Your task to perform on an android device: Clear the cart on costco. Search for razer nari on costco, select the first entry, add it to the cart, then select checkout. Image 0: 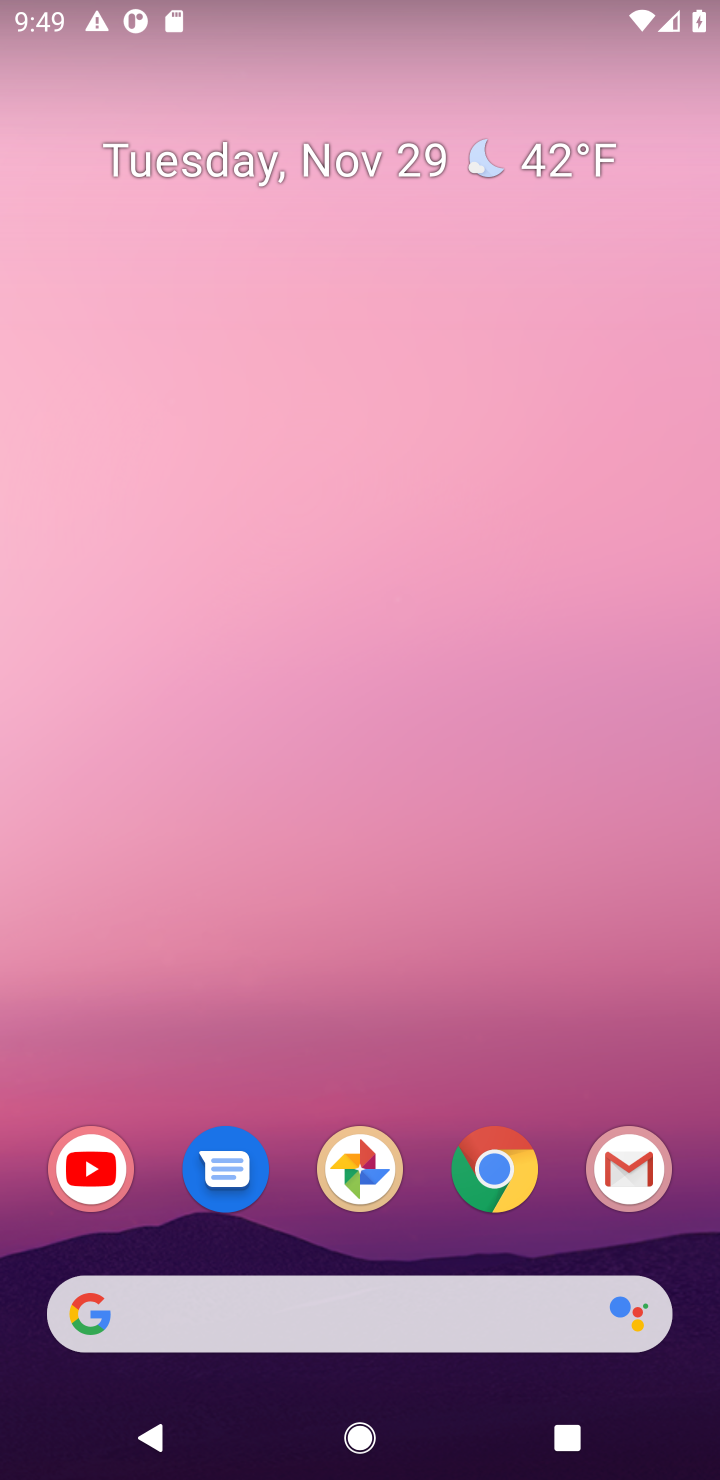
Step 0: click (253, 1322)
Your task to perform on an android device: Clear the cart on costco. Search for razer nari on costco, select the first entry, add it to the cart, then select checkout. Image 1: 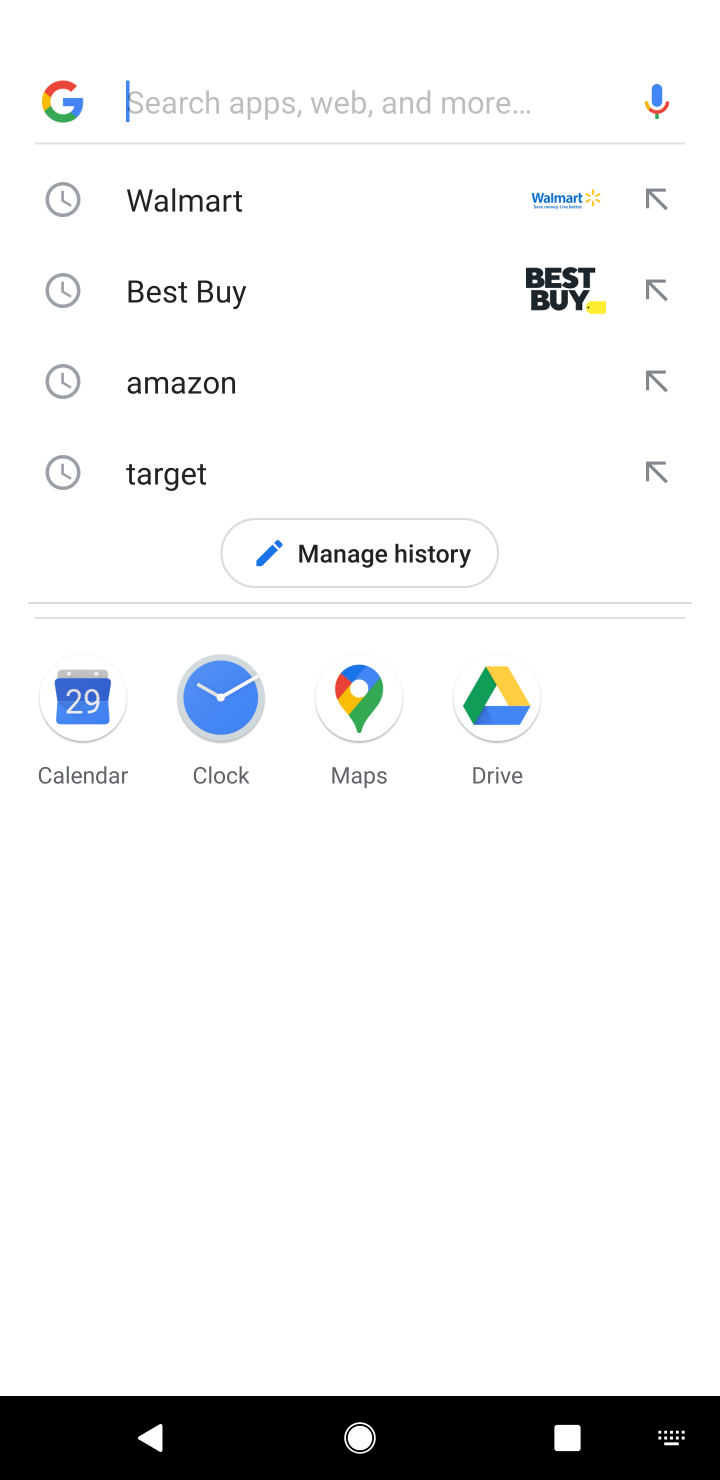
Step 1: type "costco"
Your task to perform on an android device: Clear the cart on costco. Search for razer nari on costco, select the first entry, add it to the cart, then select checkout. Image 2: 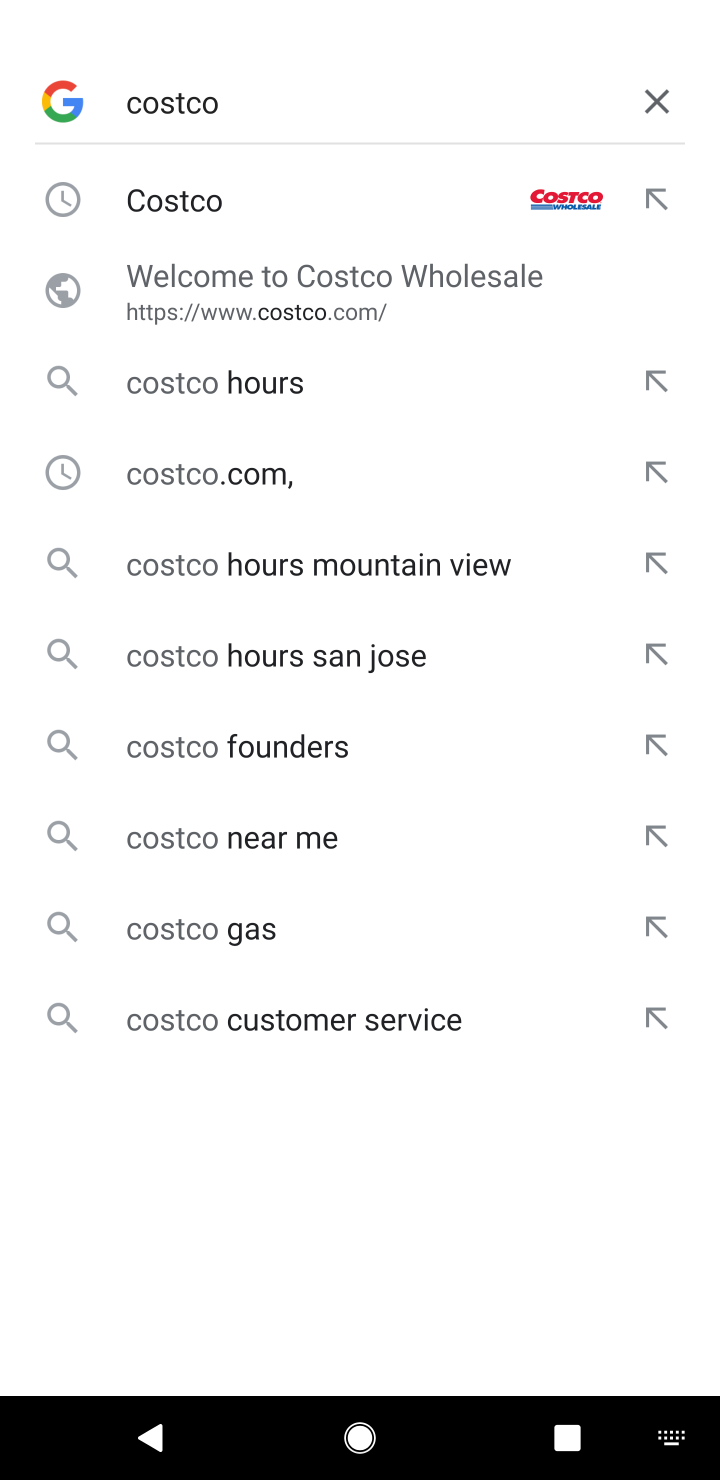
Step 2: click (244, 201)
Your task to perform on an android device: Clear the cart on costco. Search for razer nari on costco, select the first entry, add it to the cart, then select checkout. Image 3: 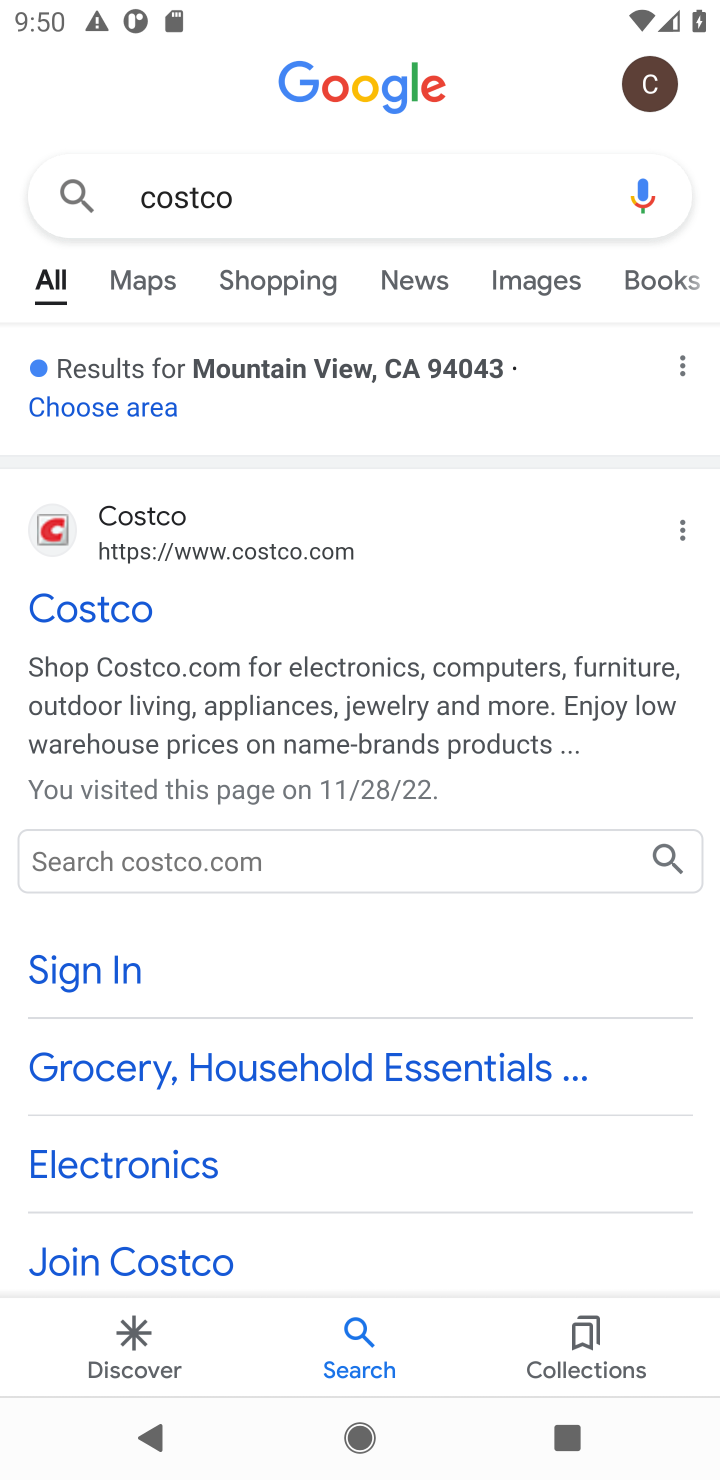
Step 3: click (63, 627)
Your task to perform on an android device: Clear the cart on costco. Search for razer nari on costco, select the first entry, add it to the cart, then select checkout. Image 4: 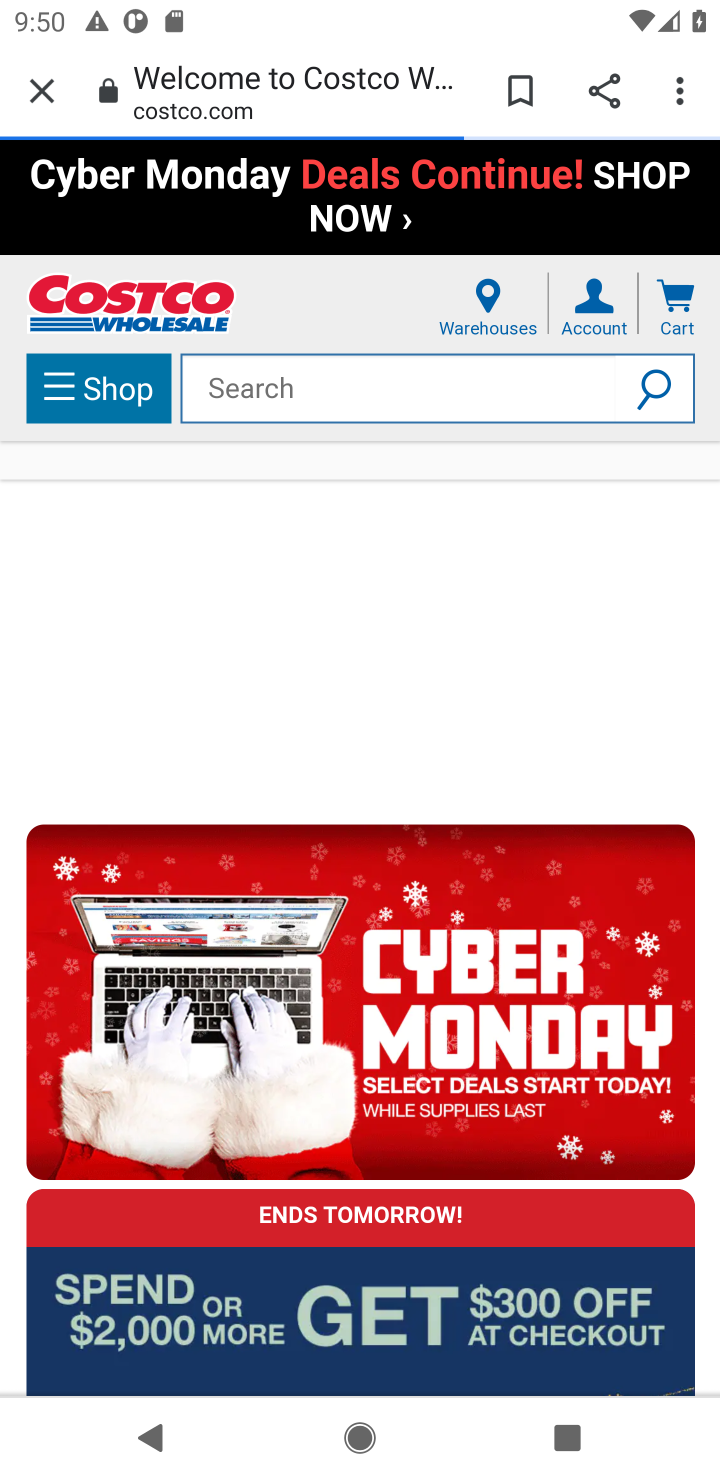
Step 4: click (284, 390)
Your task to perform on an android device: Clear the cart on costco. Search for razer nari on costco, select the first entry, add it to the cart, then select checkout. Image 5: 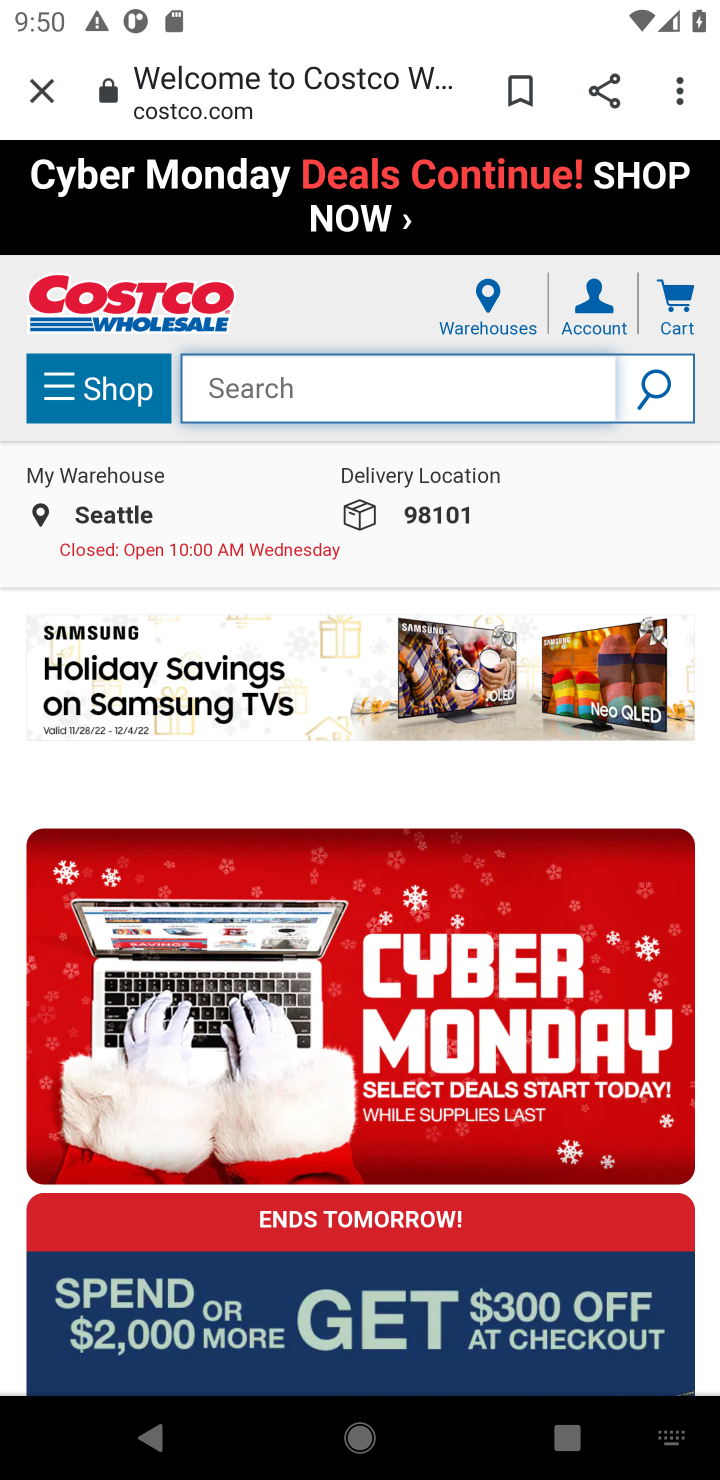
Step 5: type "razer nari"
Your task to perform on an android device: Clear the cart on costco. Search for razer nari on costco, select the first entry, add it to the cart, then select checkout. Image 6: 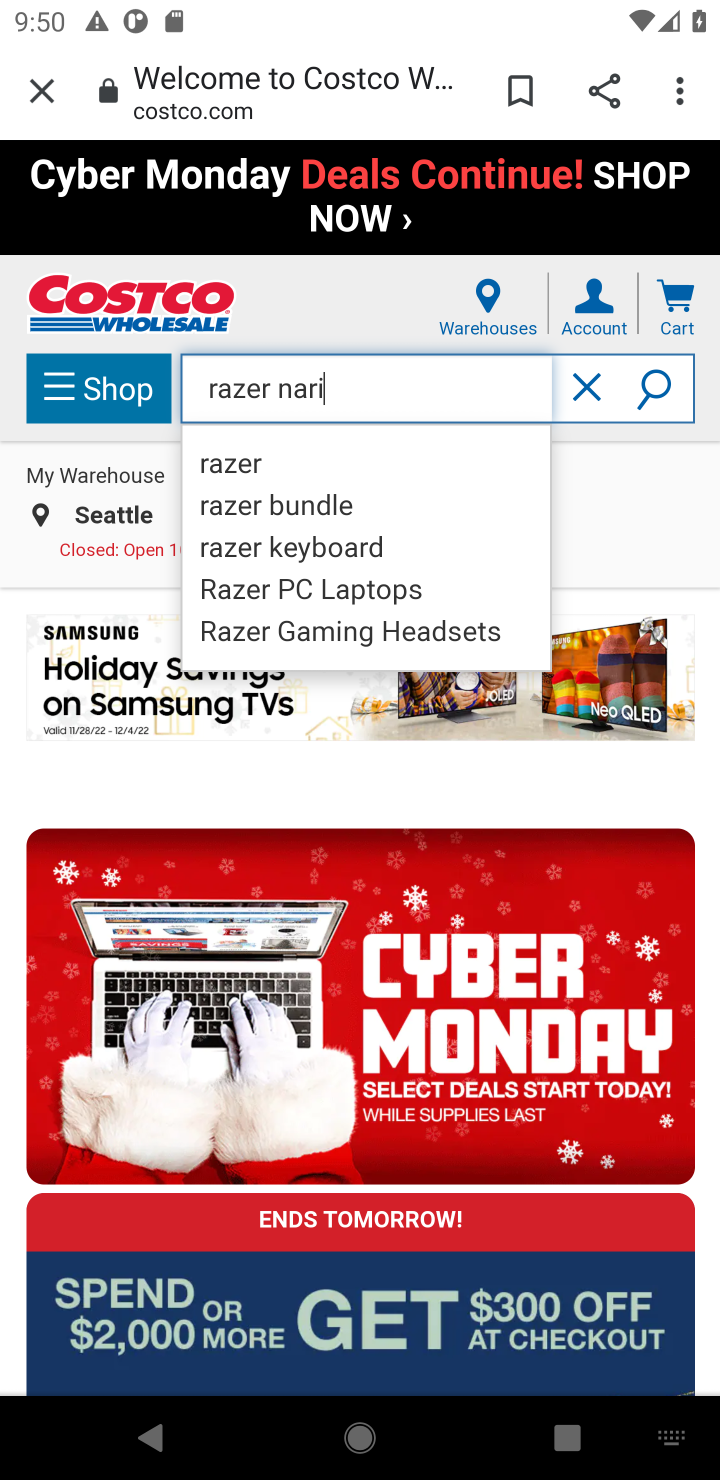
Step 6: click (643, 384)
Your task to perform on an android device: Clear the cart on costco. Search for razer nari on costco, select the first entry, add it to the cart, then select checkout. Image 7: 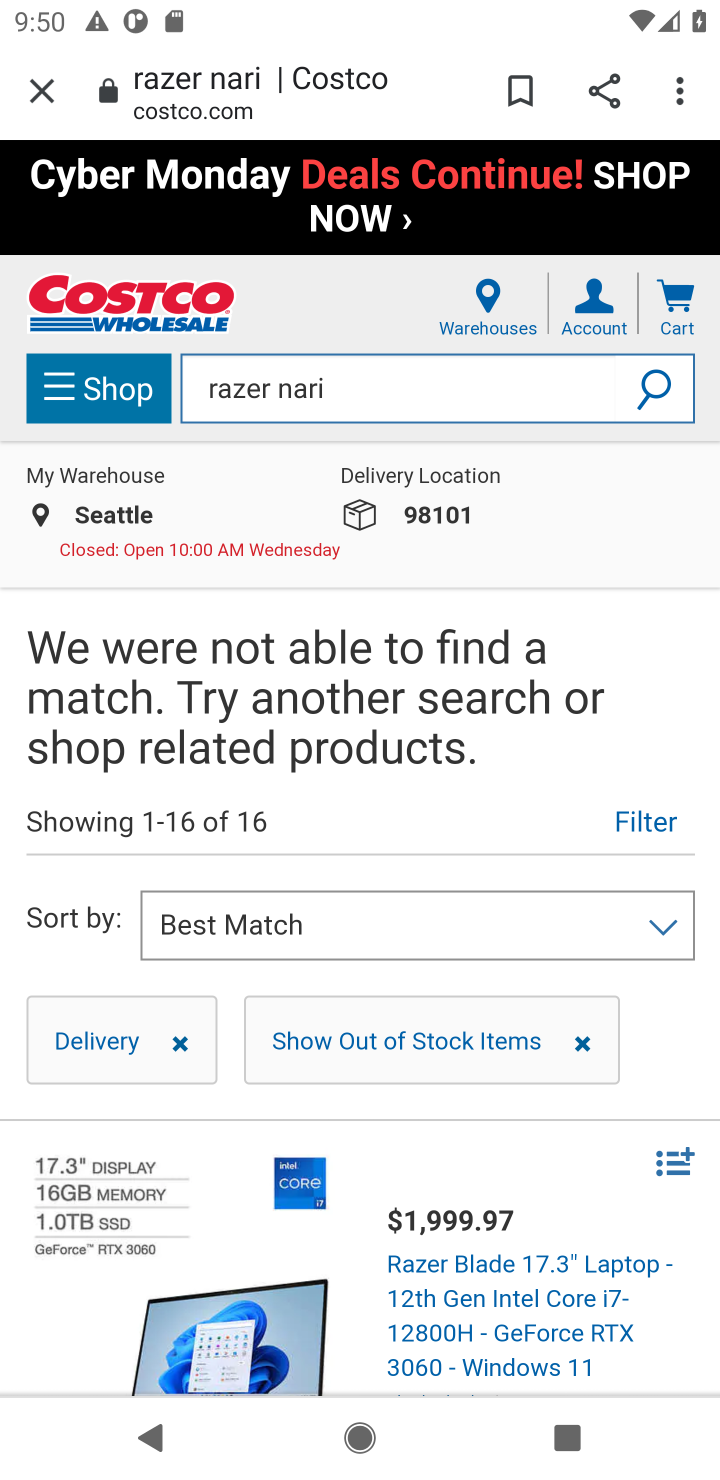
Step 7: click (437, 1224)
Your task to perform on an android device: Clear the cart on costco. Search for razer nari on costco, select the first entry, add it to the cart, then select checkout. Image 8: 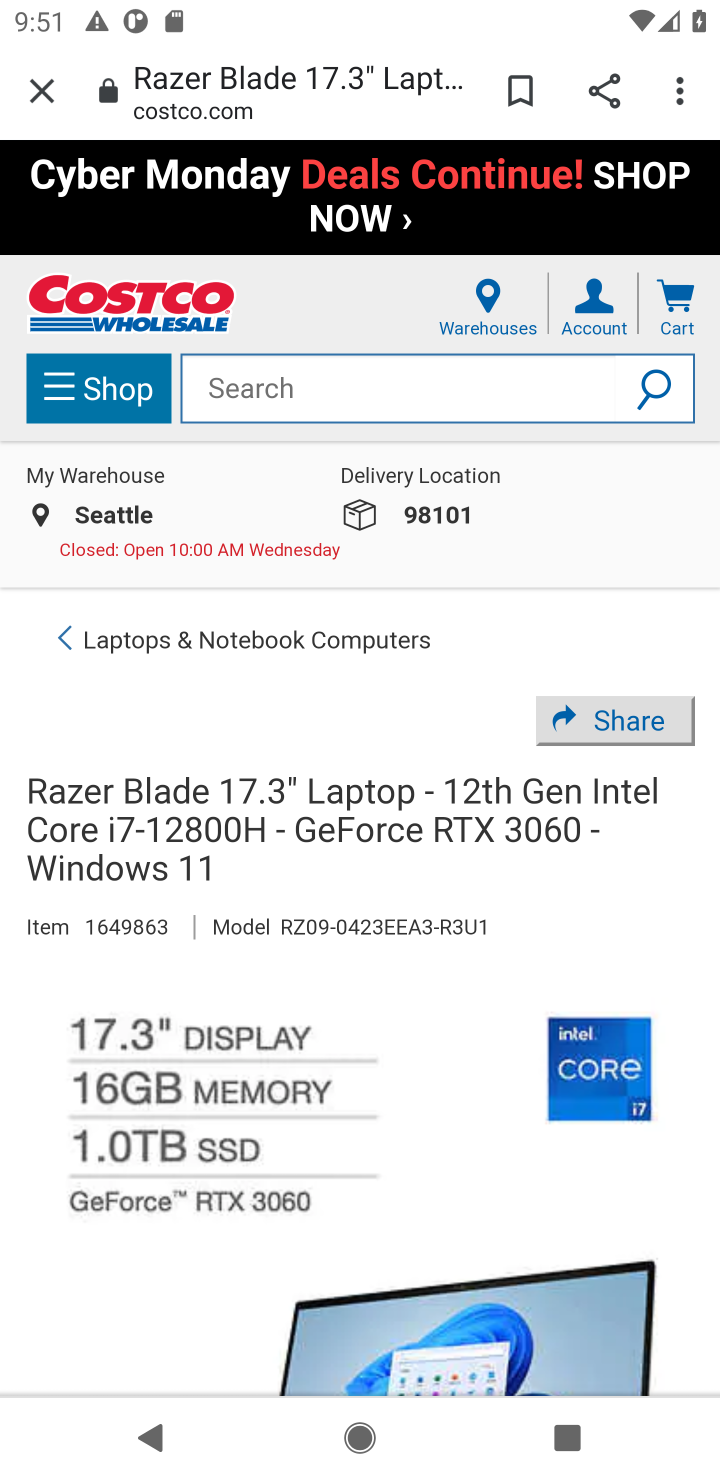
Step 8: drag from (477, 1181) to (393, 595)
Your task to perform on an android device: Clear the cart on costco. Search for razer nari on costco, select the first entry, add it to the cart, then select checkout. Image 9: 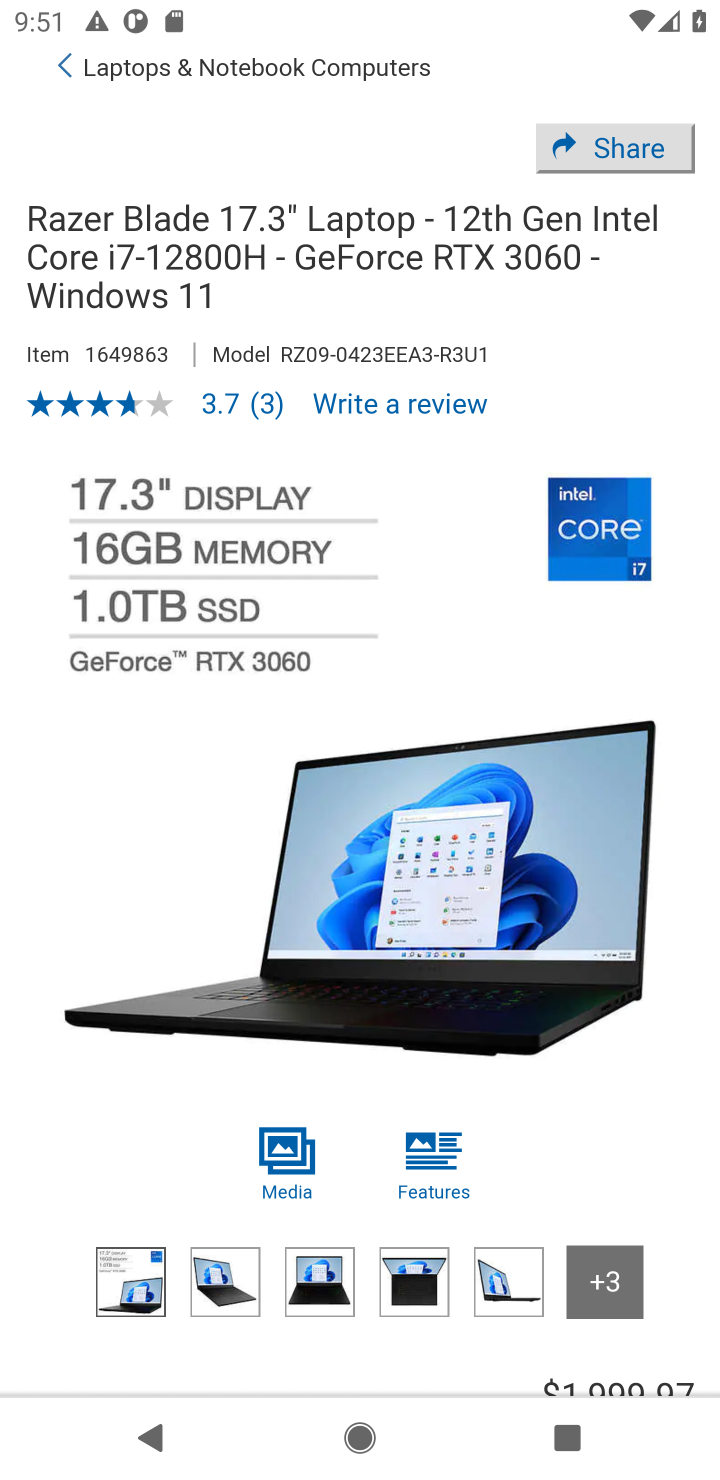
Step 9: drag from (90, 1126) to (56, 819)
Your task to perform on an android device: Clear the cart on costco. Search for razer nari on costco, select the first entry, add it to the cart, then select checkout. Image 10: 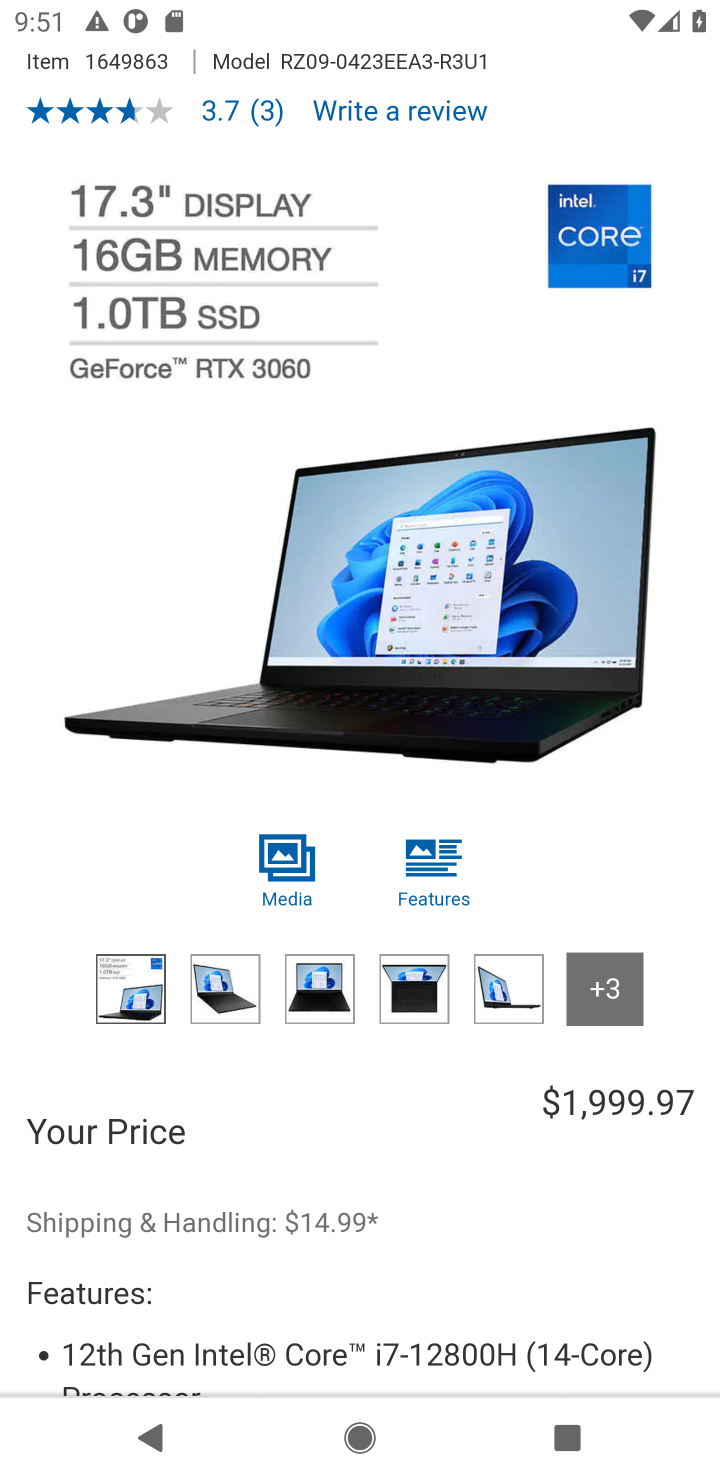
Step 10: drag from (374, 1241) to (281, 426)
Your task to perform on an android device: Clear the cart on costco. Search for razer nari on costco, select the first entry, add it to the cart, then select checkout. Image 11: 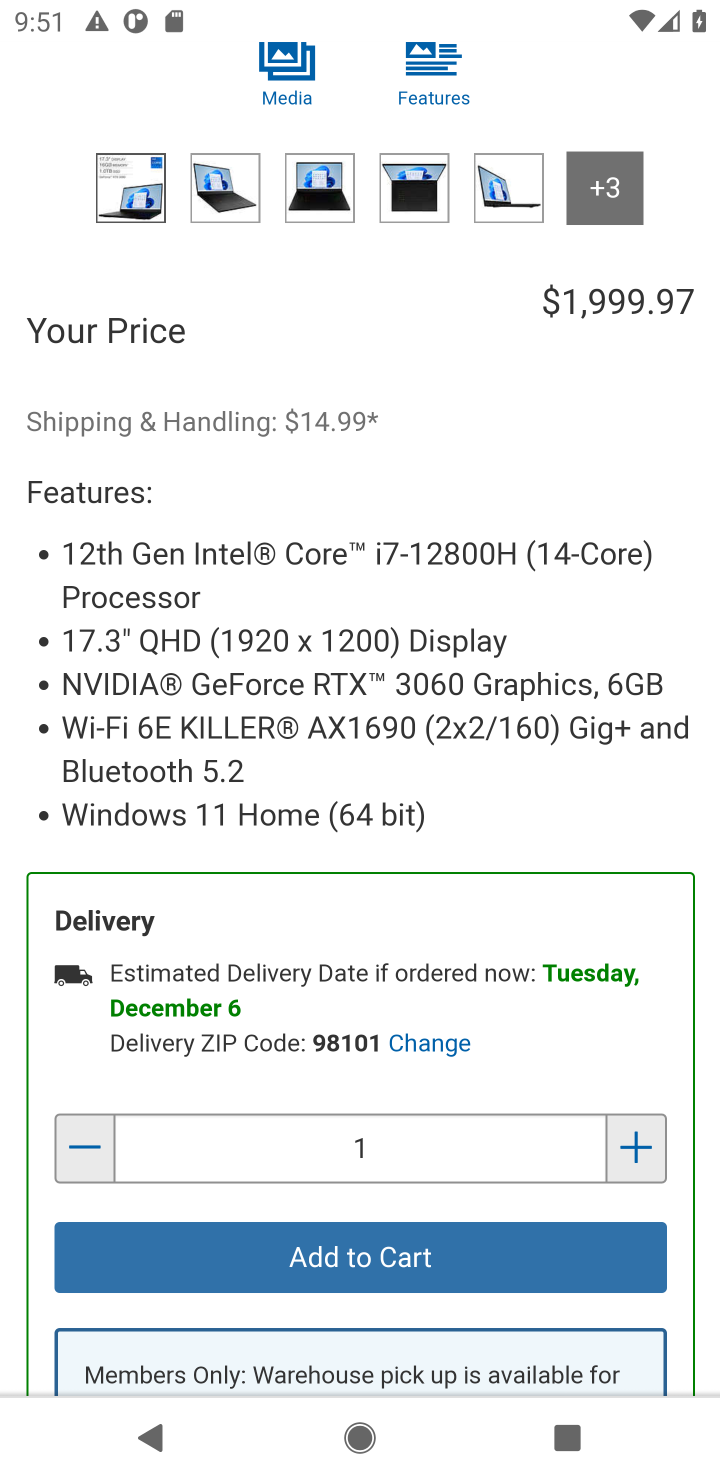
Step 11: click (426, 1281)
Your task to perform on an android device: Clear the cart on costco. Search for razer nari on costco, select the first entry, add it to the cart, then select checkout. Image 12: 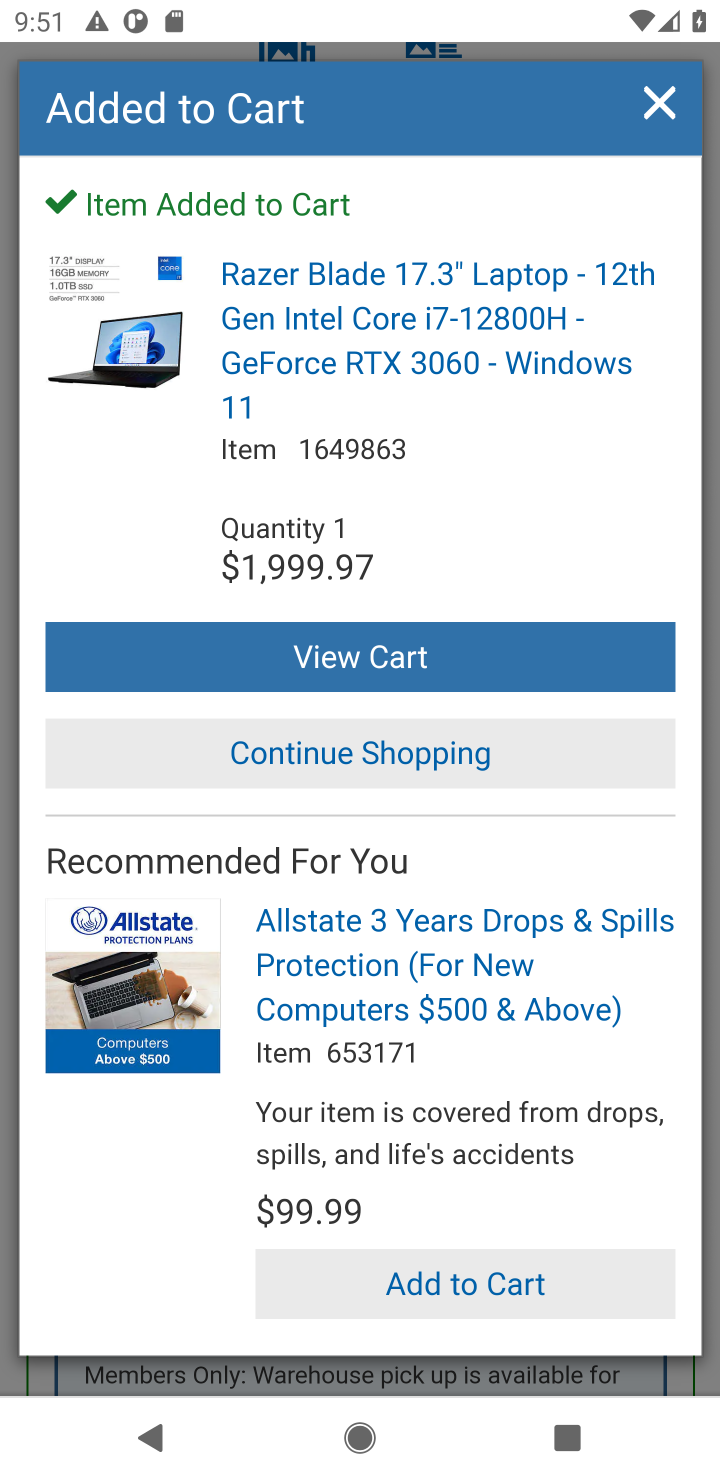
Step 12: click (318, 675)
Your task to perform on an android device: Clear the cart on costco. Search for razer nari on costco, select the first entry, add it to the cart, then select checkout. Image 13: 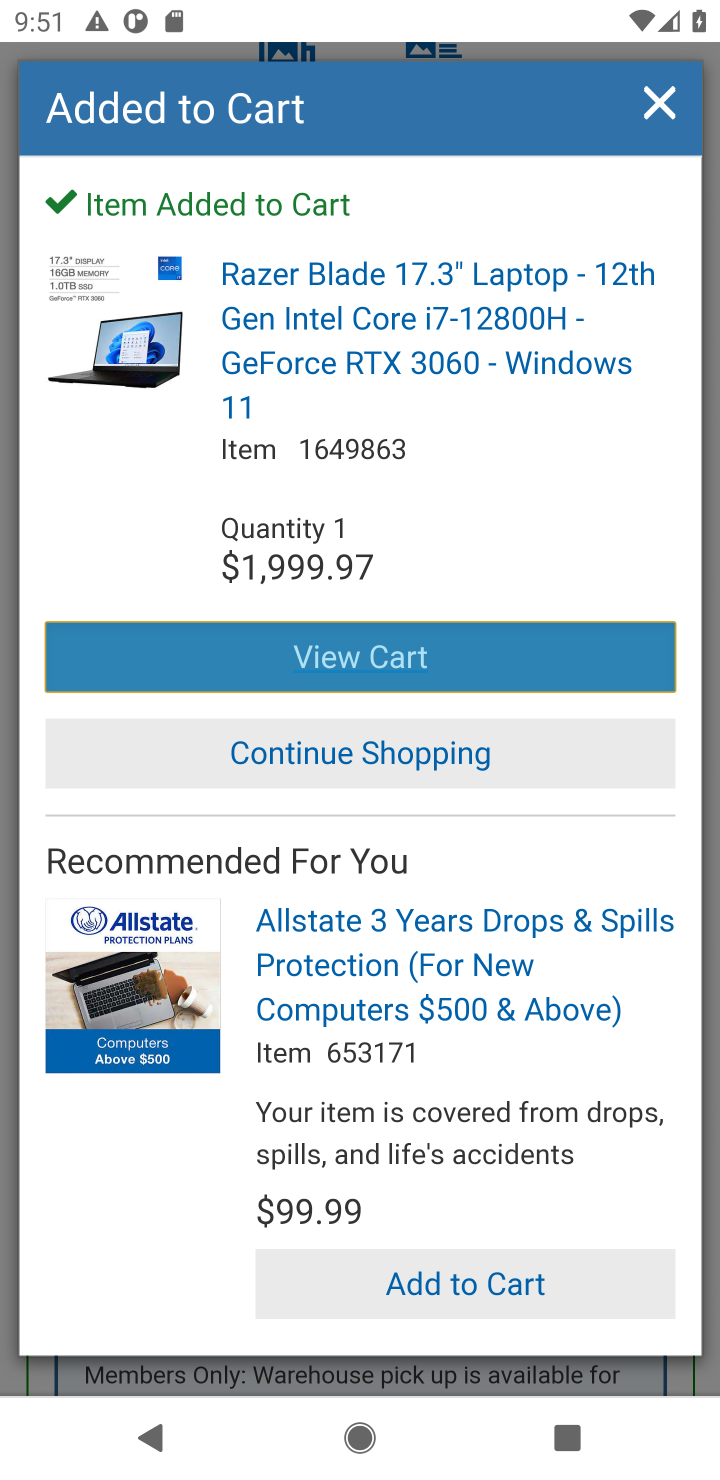
Step 13: task complete